Your task to perform on an android device: allow notifications from all sites in the chrome app Image 0: 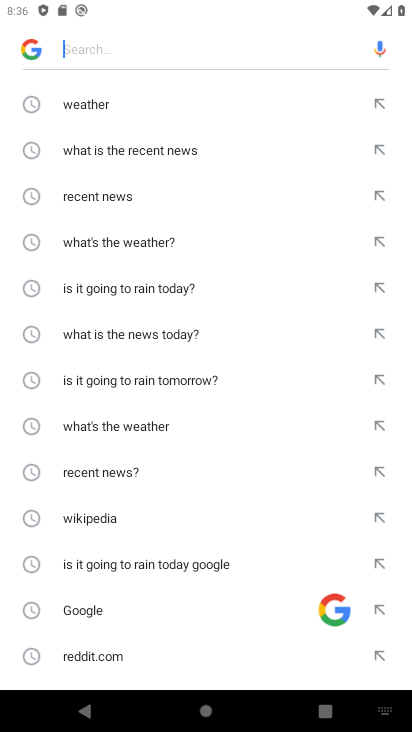
Step 0: press home button
Your task to perform on an android device: allow notifications from all sites in the chrome app Image 1: 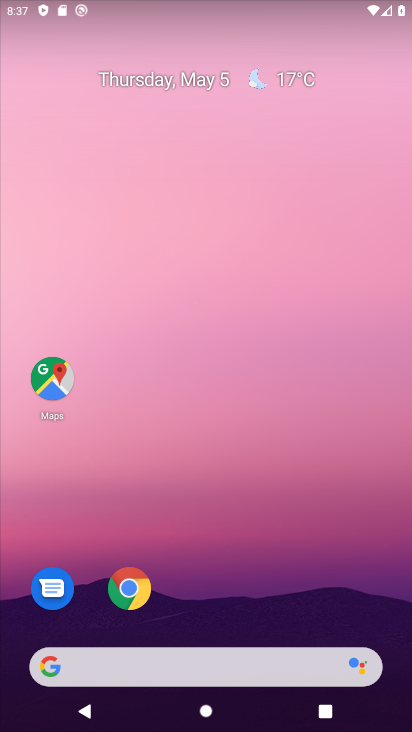
Step 1: drag from (265, 601) to (303, 191)
Your task to perform on an android device: allow notifications from all sites in the chrome app Image 2: 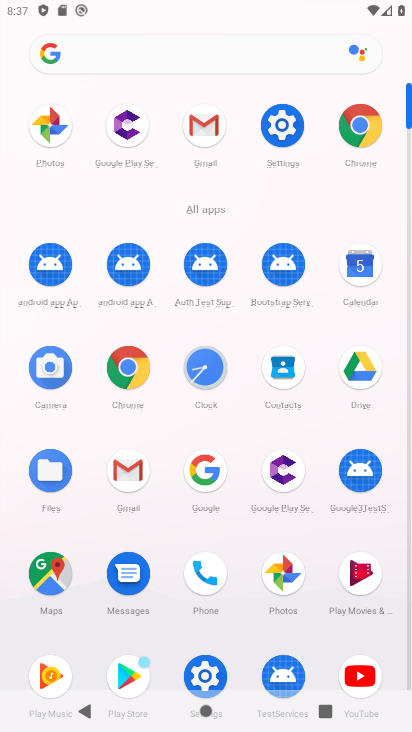
Step 2: click (137, 352)
Your task to perform on an android device: allow notifications from all sites in the chrome app Image 3: 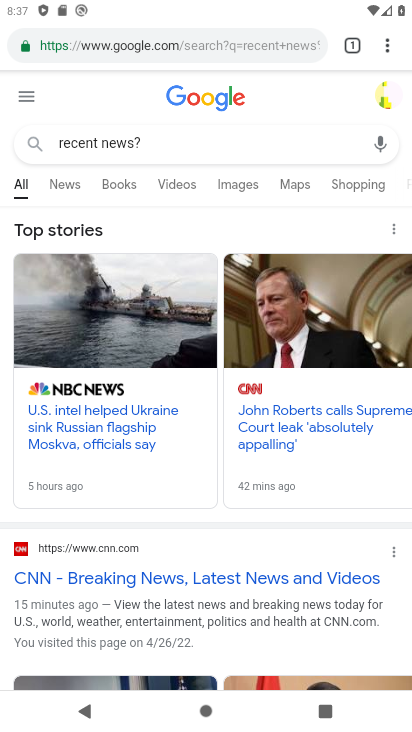
Step 3: click (374, 41)
Your task to perform on an android device: allow notifications from all sites in the chrome app Image 4: 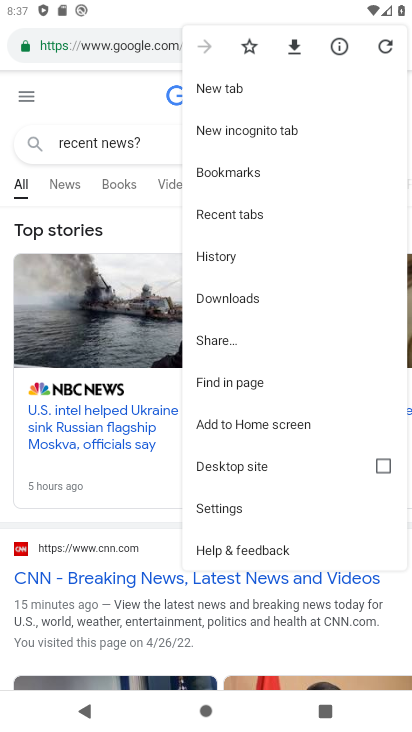
Step 4: click (240, 502)
Your task to perform on an android device: allow notifications from all sites in the chrome app Image 5: 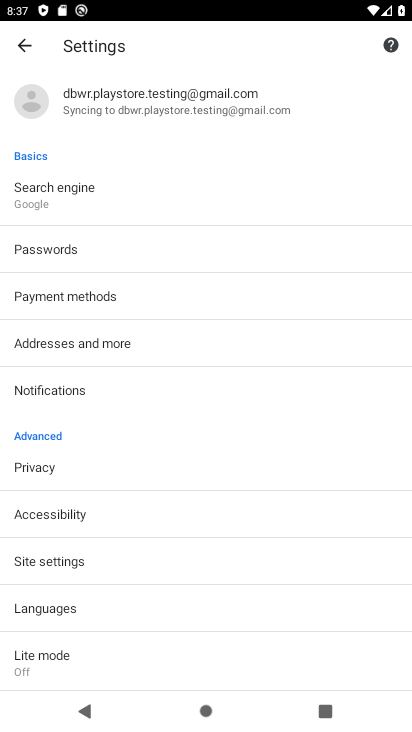
Step 5: click (81, 558)
Your task to perform on an android device: allow notifications from all sites in the chrome app Image 6: 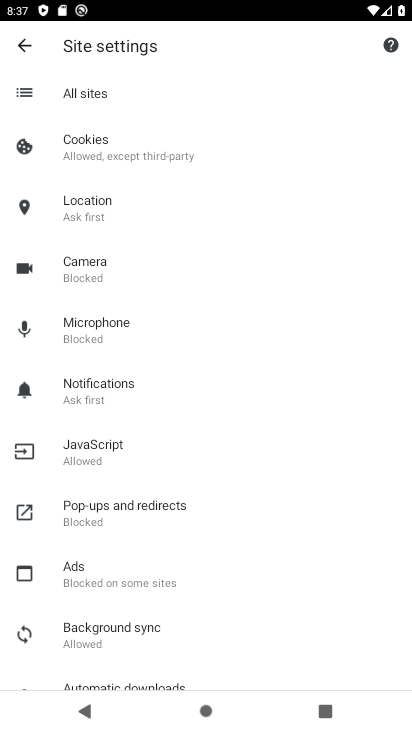
Step 6: click (120, 146)
Your task to perform on an android device: allow notifications from all sites in the chrome app Image 7: 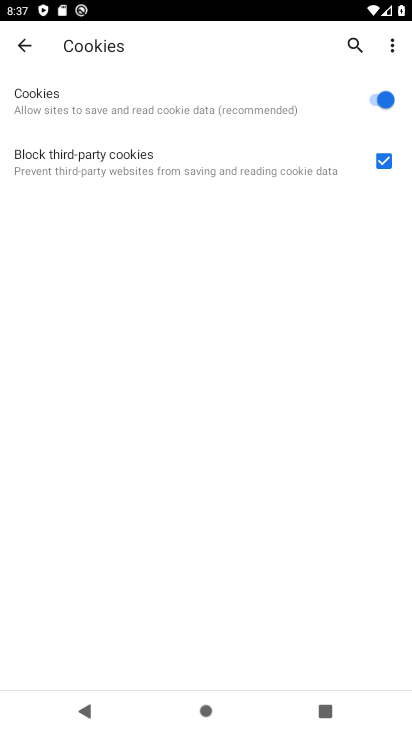
Step 7: click (29, 50)
Your task to perform on an android device: allow notifications from all sites in the chrome app Image 8: 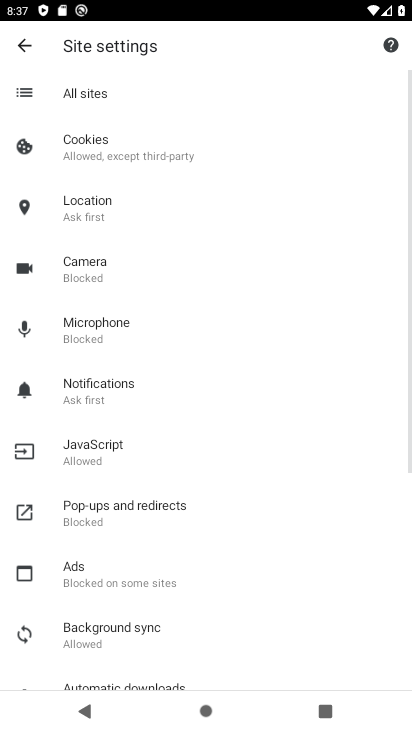
Step 8: click (105, 199)
Your task to perform on an android device: allow notifications from all sites in the chrome app Image 9: 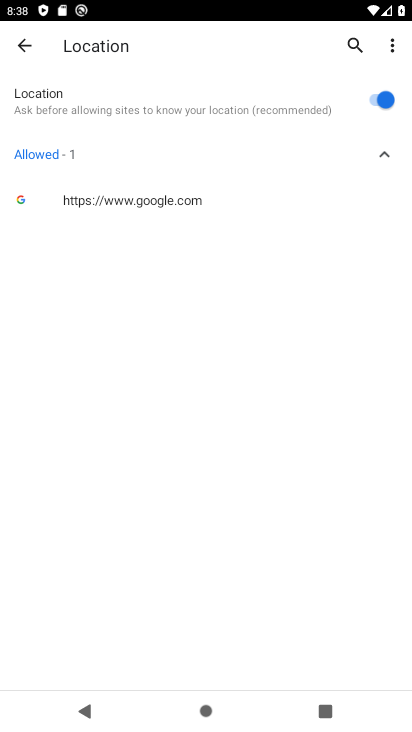
Step 9: click (26, 50)
Your task to perform on an android device: allow notifications from all sites in the chrome app Image 10: 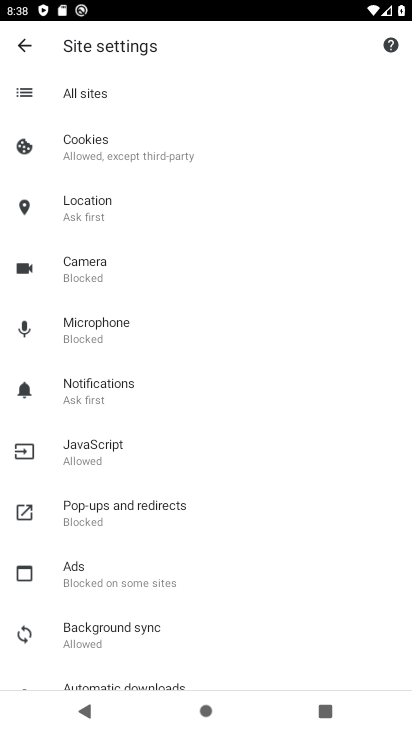
Step 10: click (101, 283)
Your task to perform on an android device: allow notifications from all sites in the chrome app Image 11: 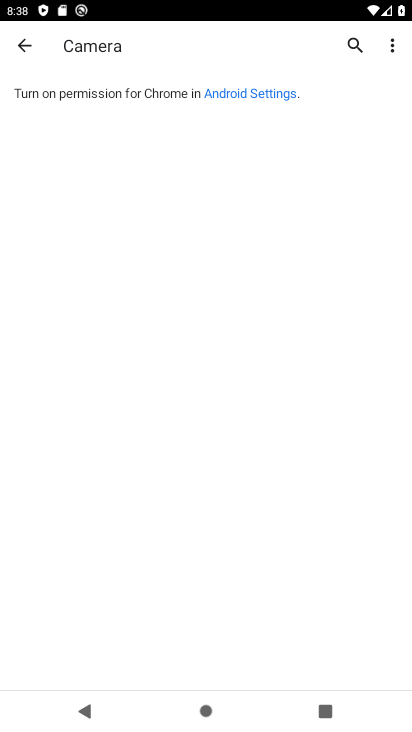
Step 11: click (26, 56)
Your task to perform on an android device: allow notifications from all sites in the chrome app Image 12: 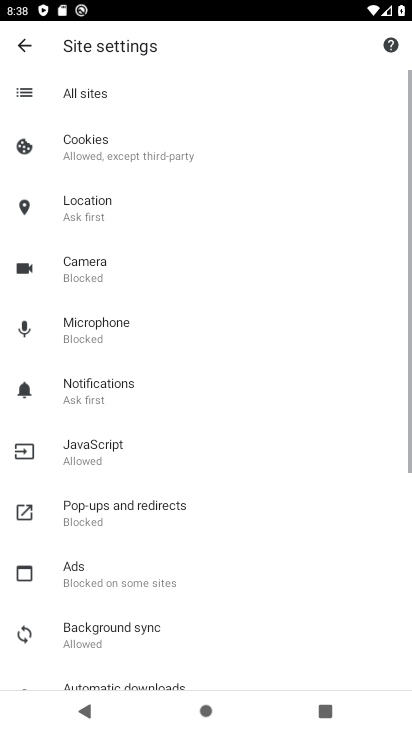
Step 12: click (93, 329)
Your task to perform on an android device: allow notifications from all sites in the chrome app Image 13: 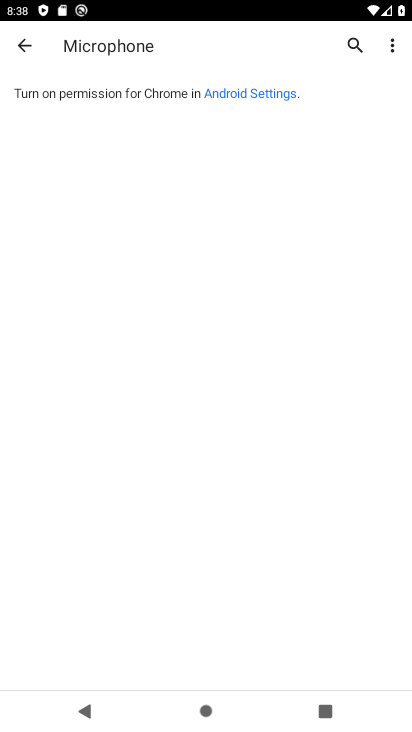
Step 13: click (25, 51)
Your task to perform on an android device: allow notifications from all sites in the chrome app Image 14: 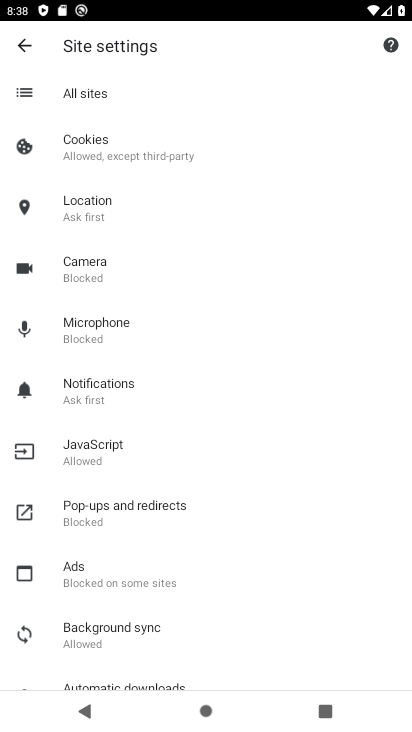
Step 14: click (123, 398)
Your task to perform on an android device: allow notifications from all sites in the chrome app Image 15: 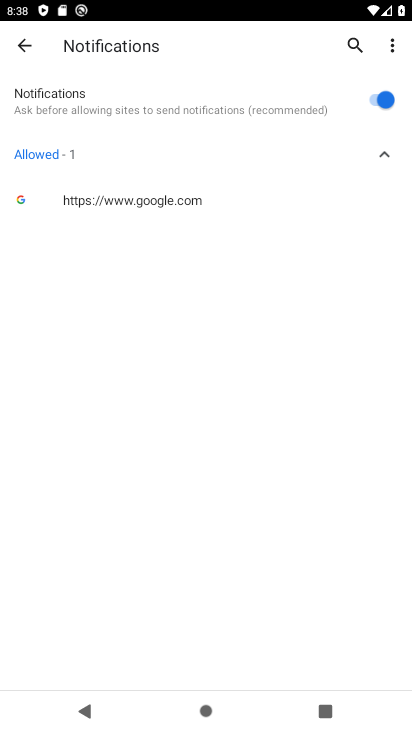
Step 15: click (33, 47)
Your task to perform on an android device: allow notifications from all sites in the chrome app Image 16: 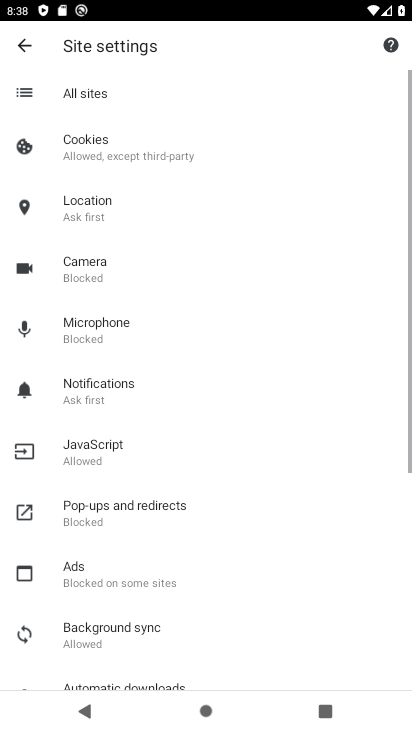
Step 16: click (113, 445)
Your task to perform on an android device: allow notifications from all sites in the chrome app Image 17: 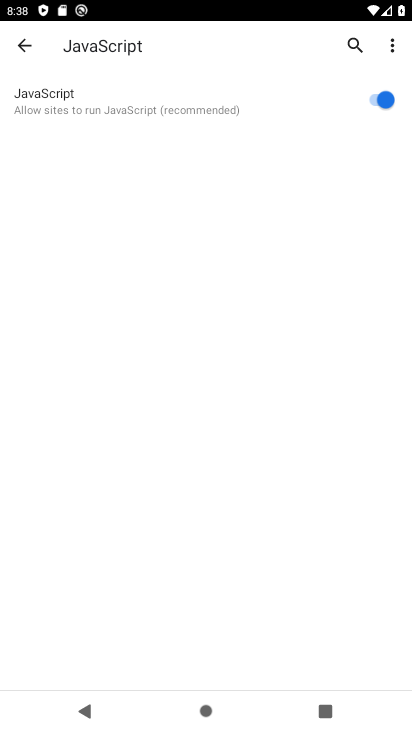
Step 17: click (33, 51)
Your task to perform on an android device: allow notifications from all sites in the chrome app Image 18: 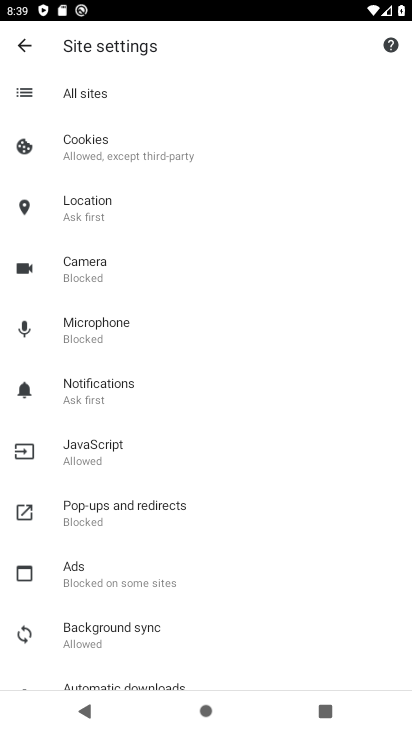
Step 18: task complete